Your task to perform on an android device: Open calendar and show me the third week of next month Image 0: 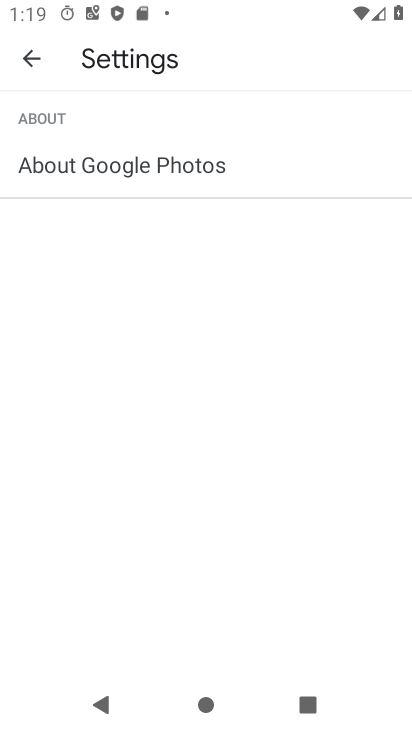
Step 0: press home button
Your task to perform on an android device: Open calendar and show me the third week of next month Image 1: 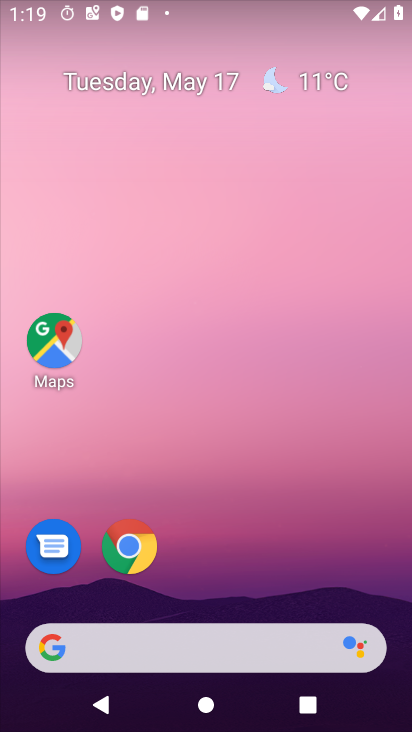
Step 1: drag from (155, 632) to (268, 190)
Your task to perform on an android device: Open calendar and show me the third week of next month Image 2: 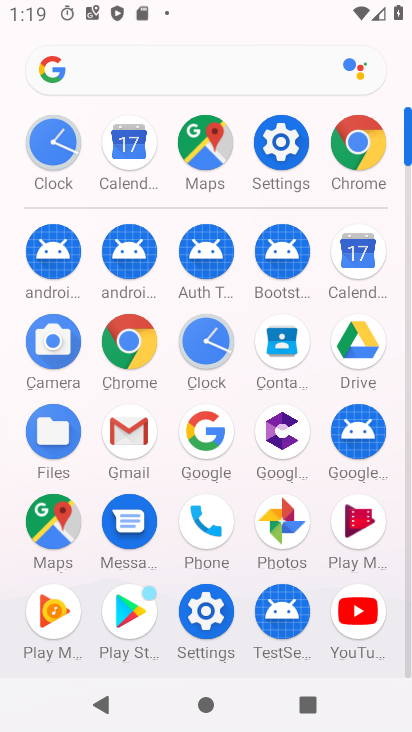
Step 2: click (362, 266)
Your task to perform on an android device: Open calendar and show me the third week of next month Image 3: 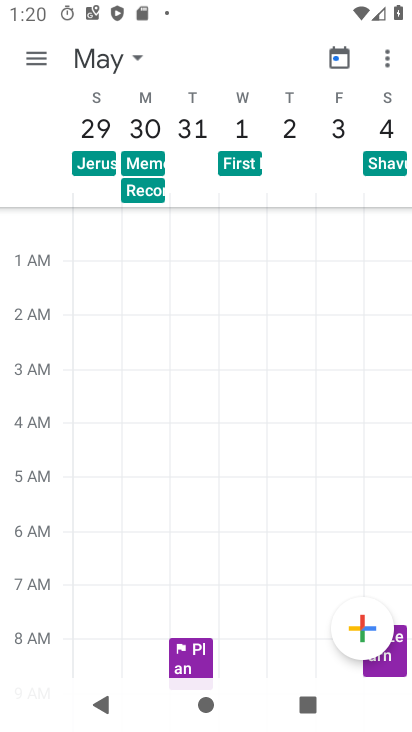
Step 3: click (113, 60)
Your task to perform on an android device: Open calendar and show me the third week of next month Image 4: 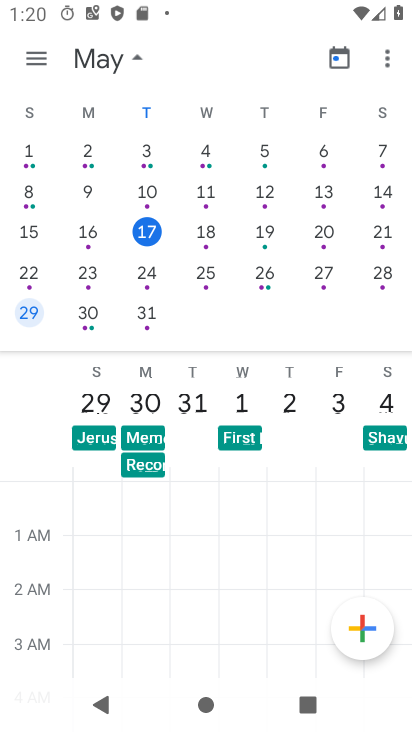
Step 4: drag from (341, 239) to (38, 253)
Your task to perform on an android device: Open calendar and show me the third week of next month Image 5: 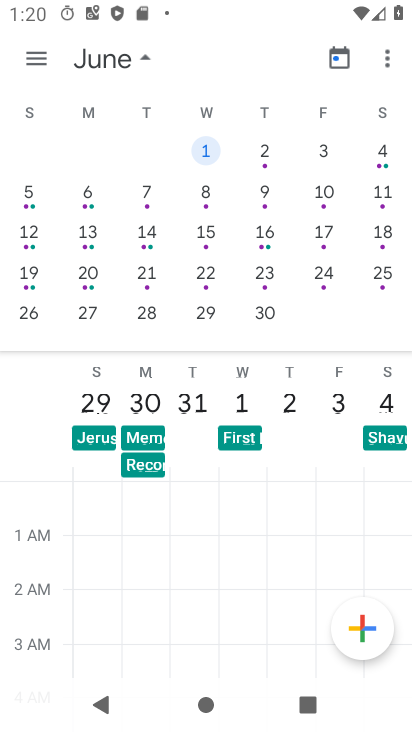
Step 5: click (33, 233)
Your task to perform on an android device: Open calendar and show me the third week of next month Image 6: 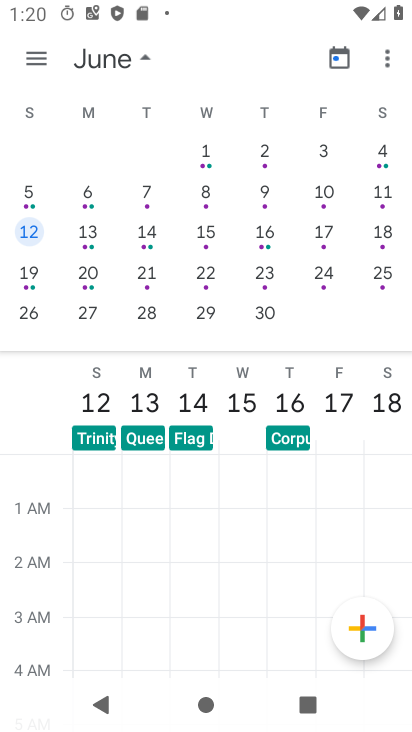
Step 6: click (31, 62)
Your task to perform on an android device: Open calendar and show me the third week of next month Image 7: 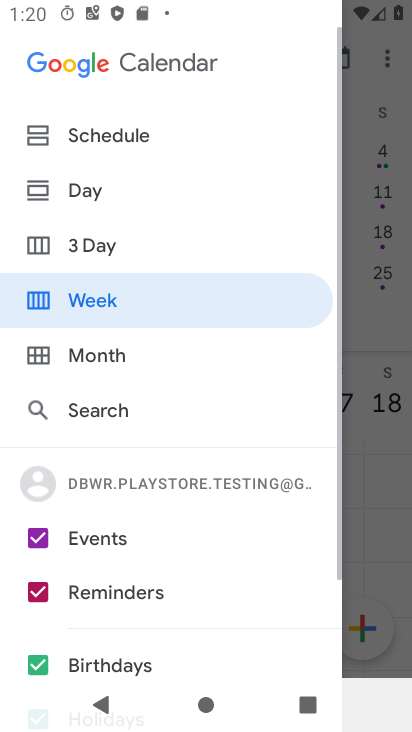
Step 7: click (78, 305)
Your task to perform on an android device: Open calendar and show me the third week of next month Image 8: 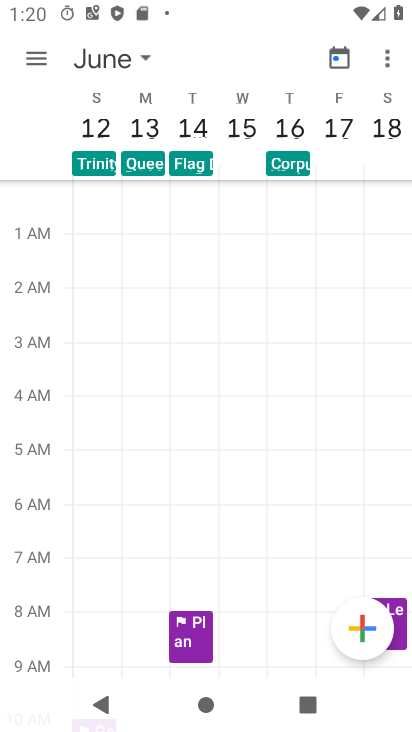
Step 8: task complete